Your task to perform on an android device: delete browsing data in the chrome app Image 0: 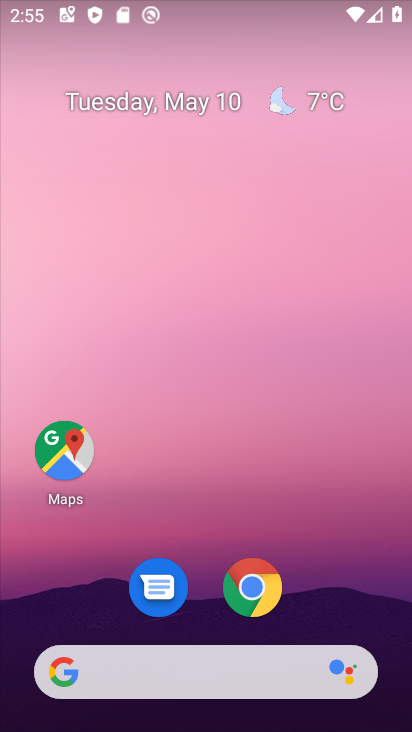
Step 0: click (257, 587)
Your task to perform on an android device: delete browsing data in the chrome app Image 1: 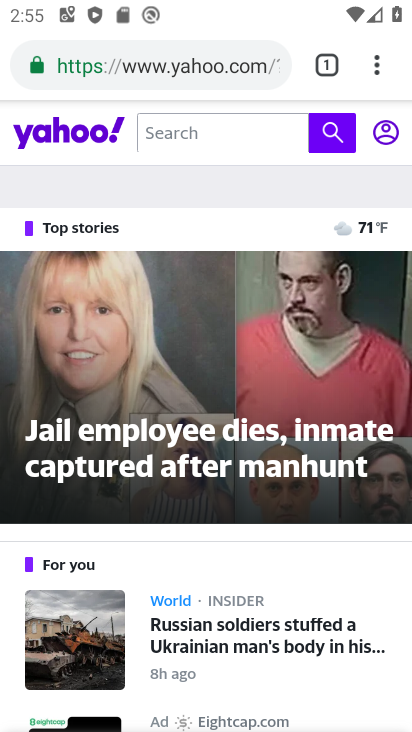
Step 1: click (373, 66)
Your task to perform on an android device: delete browsing data in the chrome app Image 2: 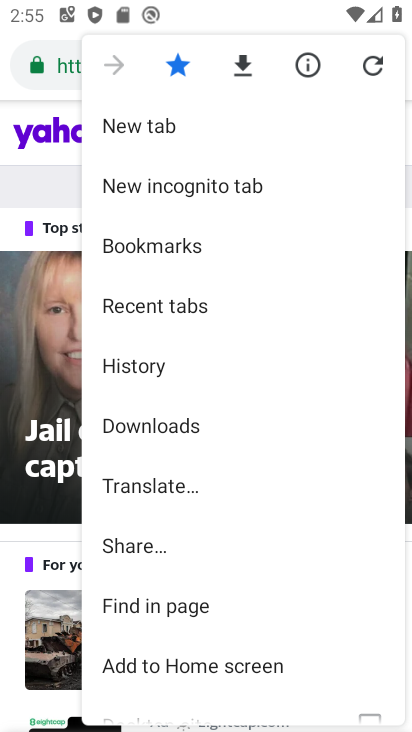
Step 2: click (139, 363)
Your task to perform on an android device: delete browsing data in the chrome app Image 3: 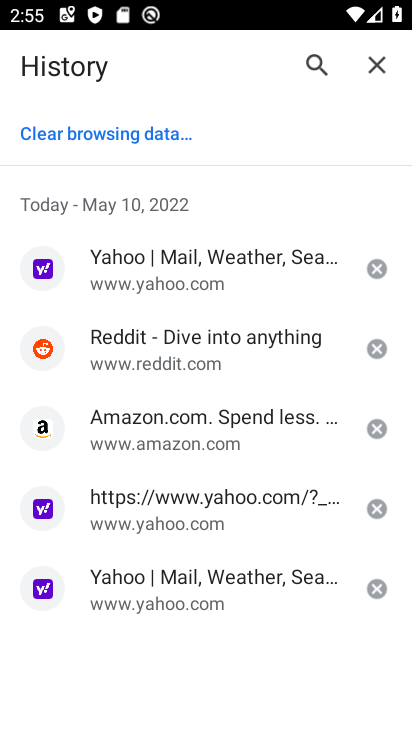
Step 3: click (126, 139)
Your task to perform on an android device: delete browsing data in the chrome app Image 4: 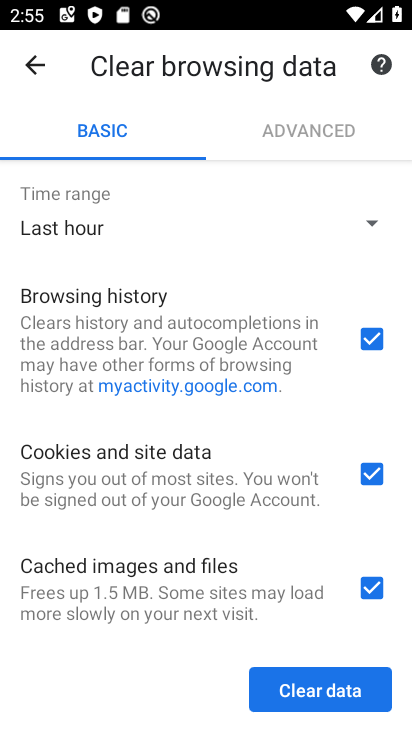
Step 4: click (120, 220)
Your task to perform on an android device: delete browsing data in the chrome app Image 5: 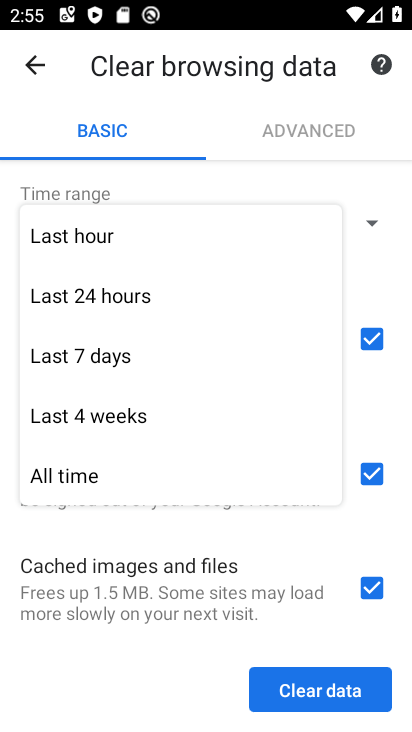
Step 5: click (96, 480)
Your task to perform on an android device: delete browsing data in the chrome app Image 6: 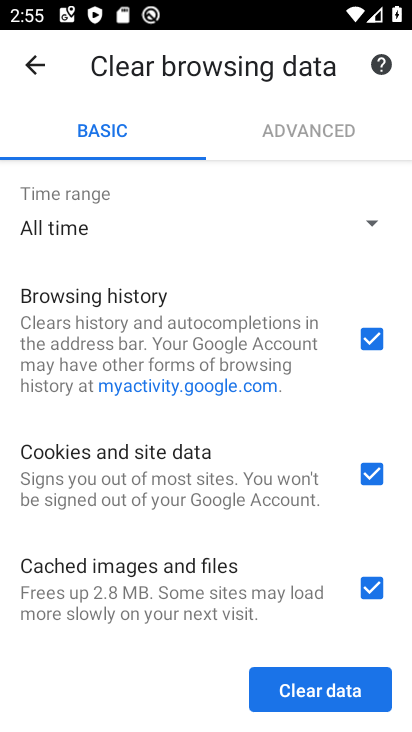
Step 6: click (291, 701)
Your task to perform on an android device: delete browsing data in the chrome app Image 7: 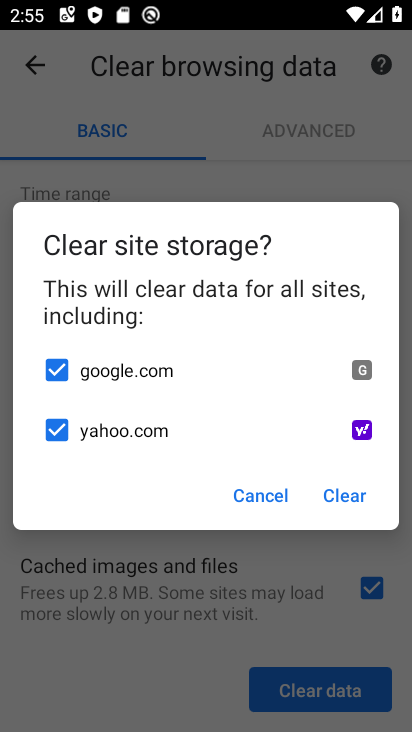
Step 7: click (333, 501)
Your task to perform on an android device: delete browsing data in the chrome app Image 8: 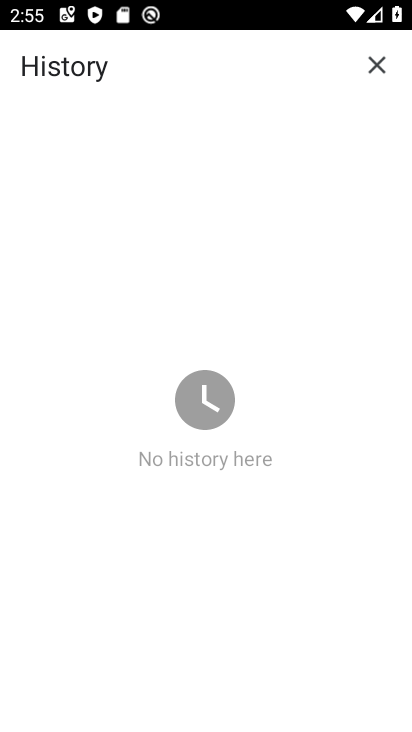
Step 8: task complete